Your task to perform on an android device: turn off location history Image 0: 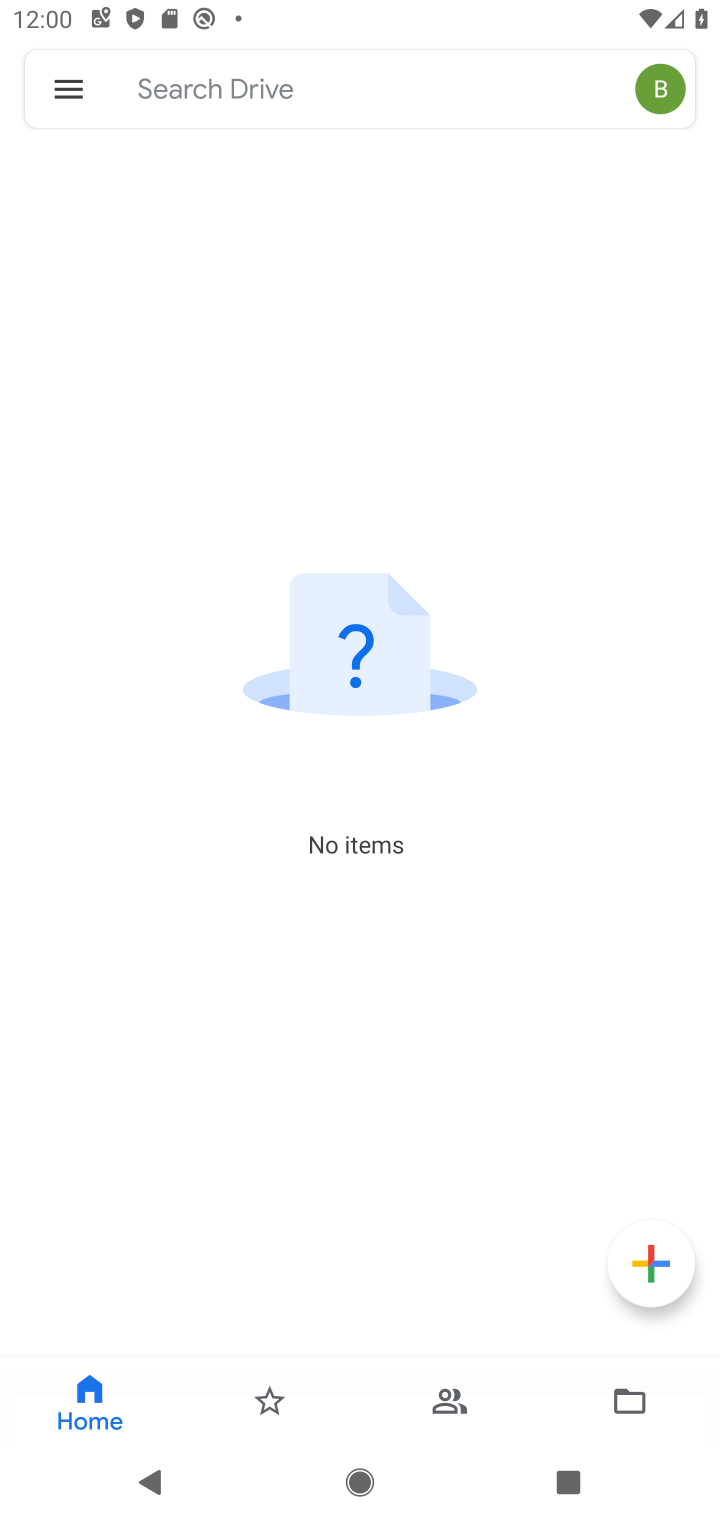
Step 0: press back button
Your task to perform on an android device: turn off location history Image 1: 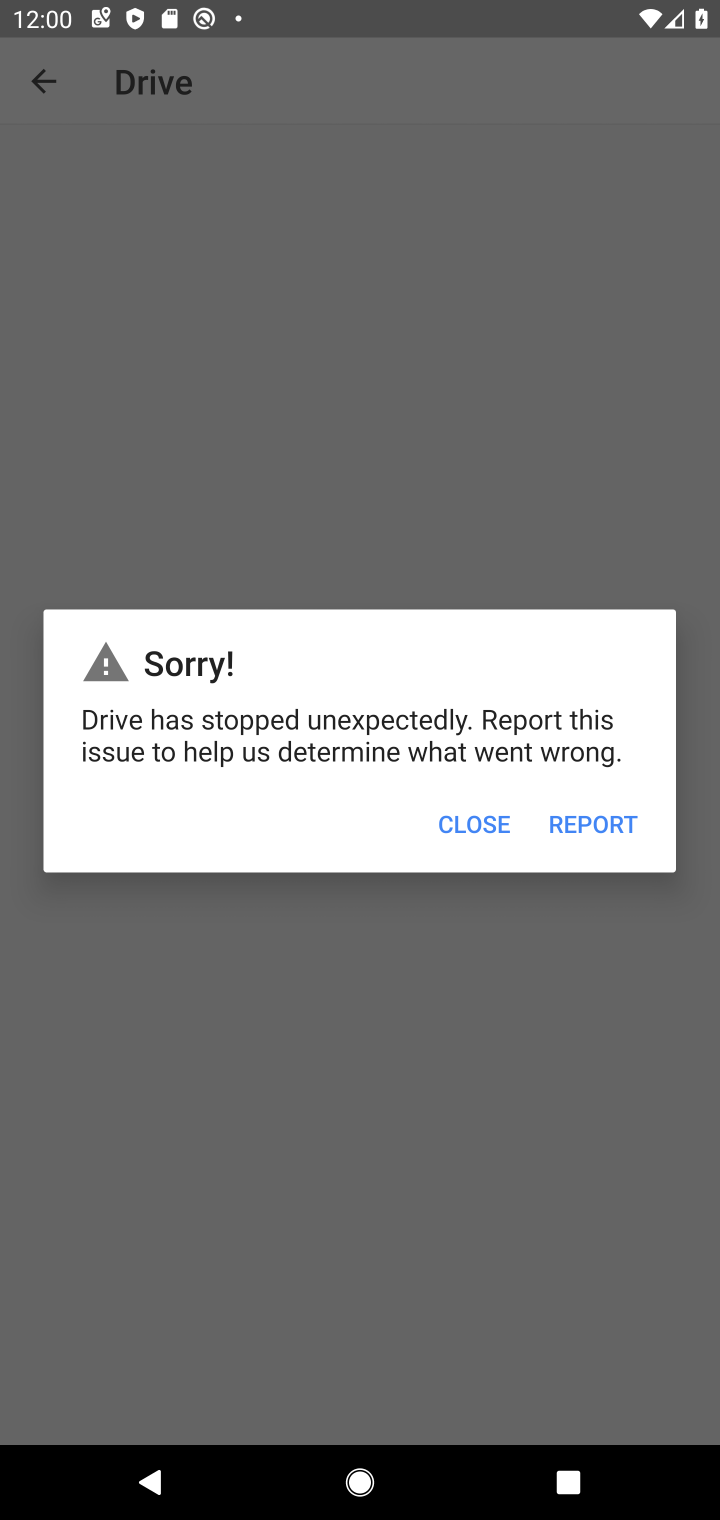
Step 1: click (444, 826)
Your task to perform on an android device: turn off location history Image 2: 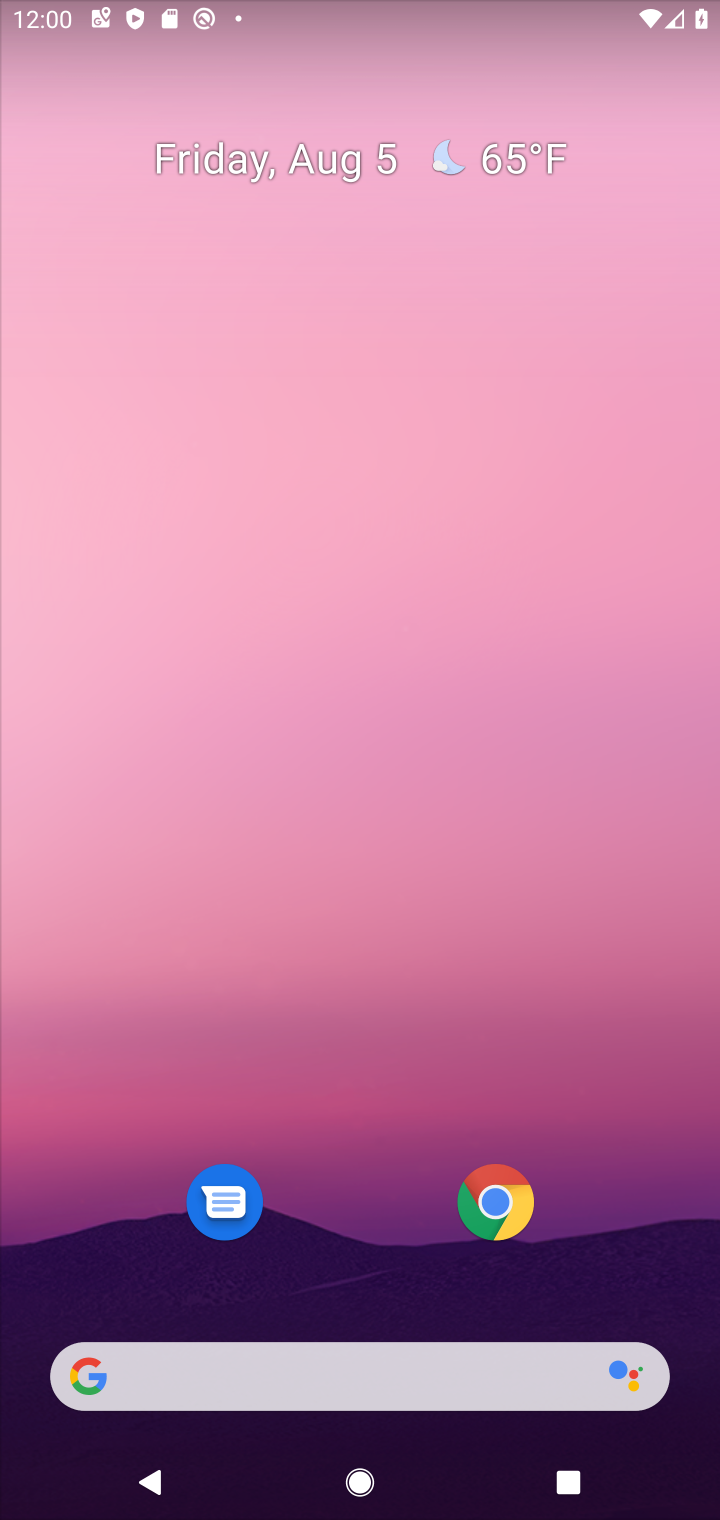
Step 2: drag from (368, 1261) to (455, 42)
Your task to perform on an android device: turn off location history Image 3: 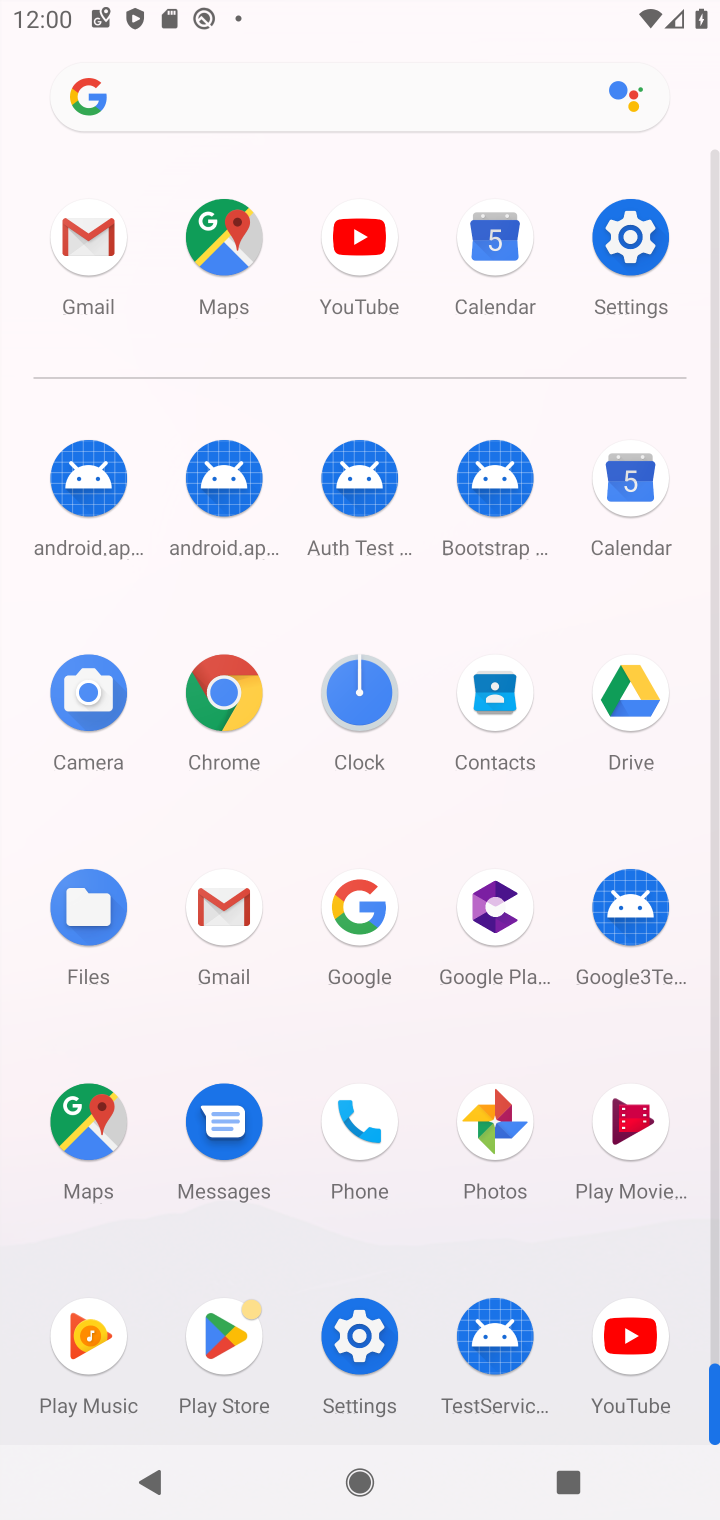
Step 3: click (648, 223)
Your task to perform on an android device: turn off location history Image 4: 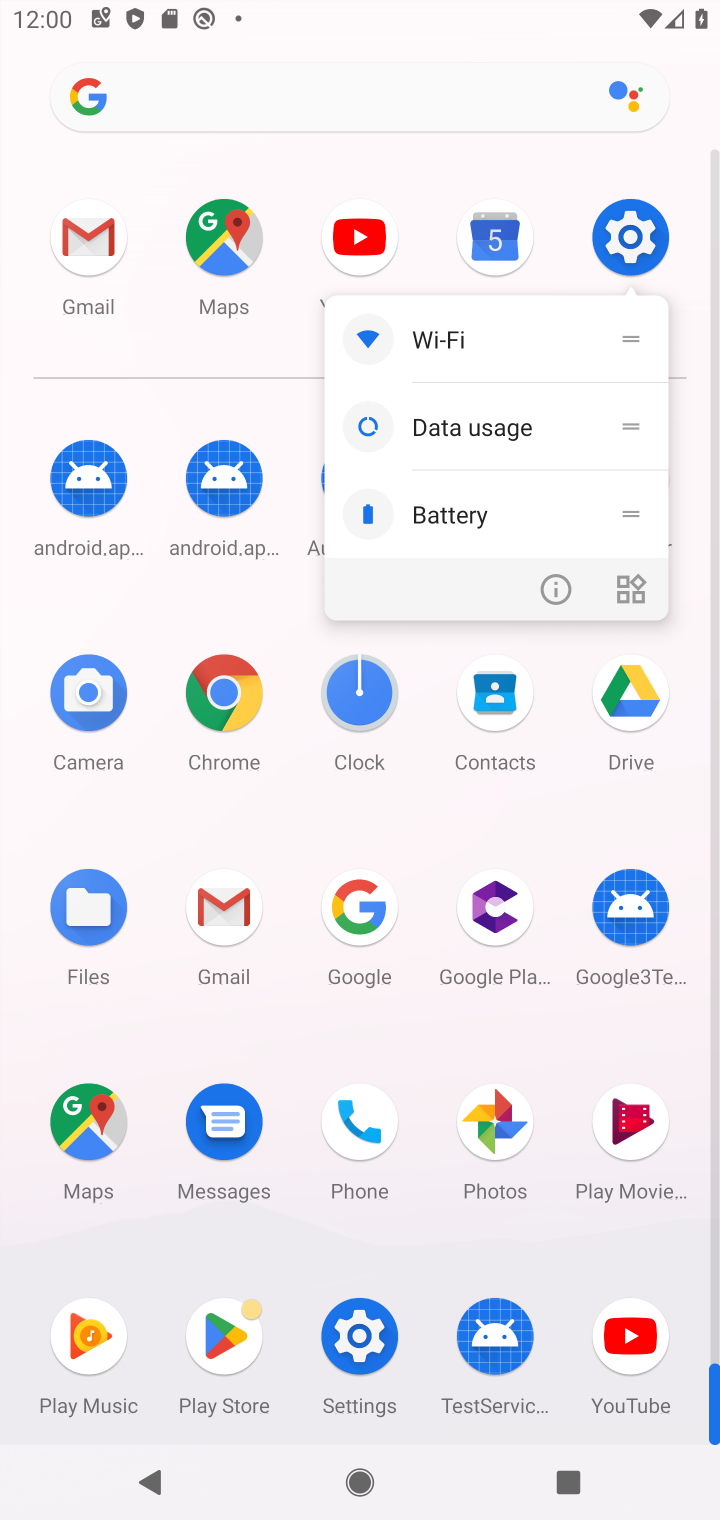
Step 4: click (648, 223)
Your task to perform on an android device: turn off location history Image 5: 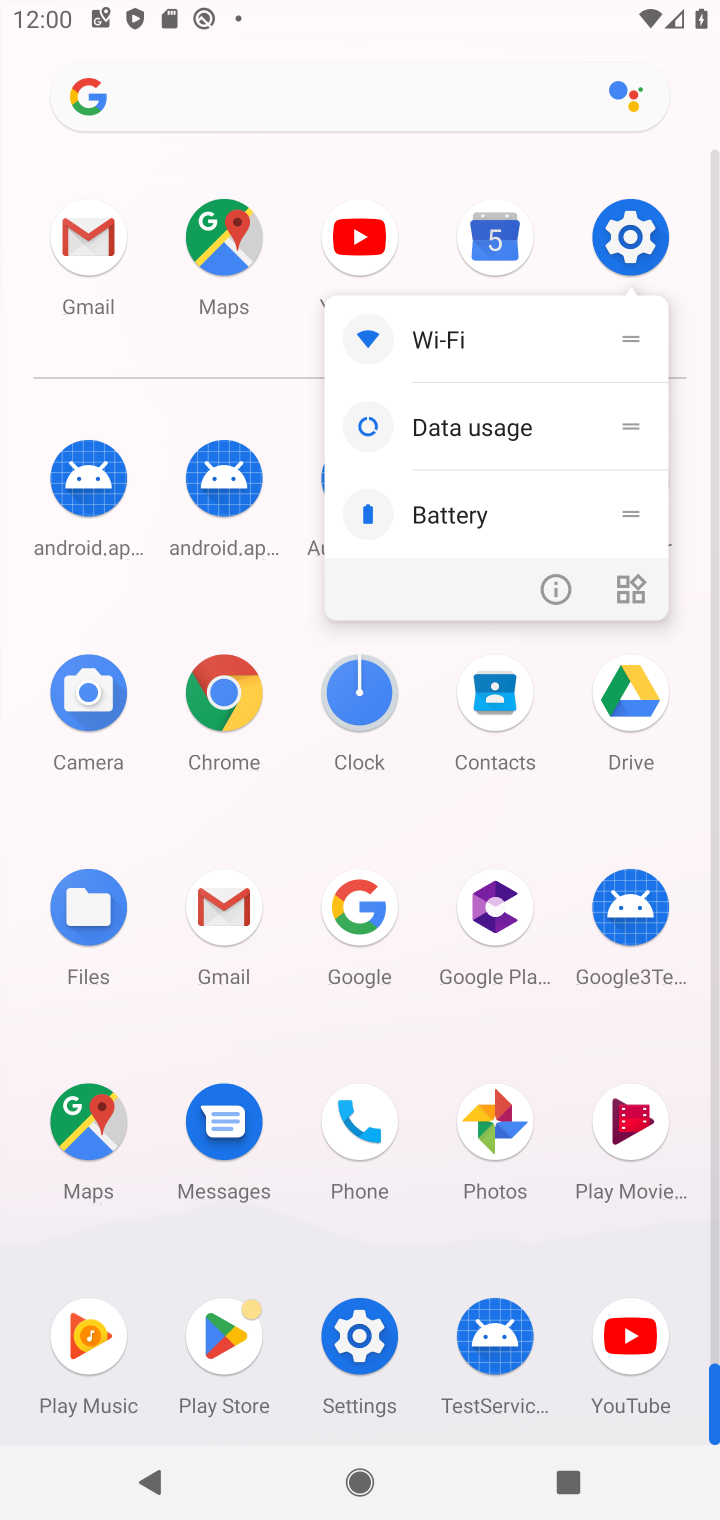
Step 5: click (636, 229)
Your task to perform on an android device: turn off location history Image 6: 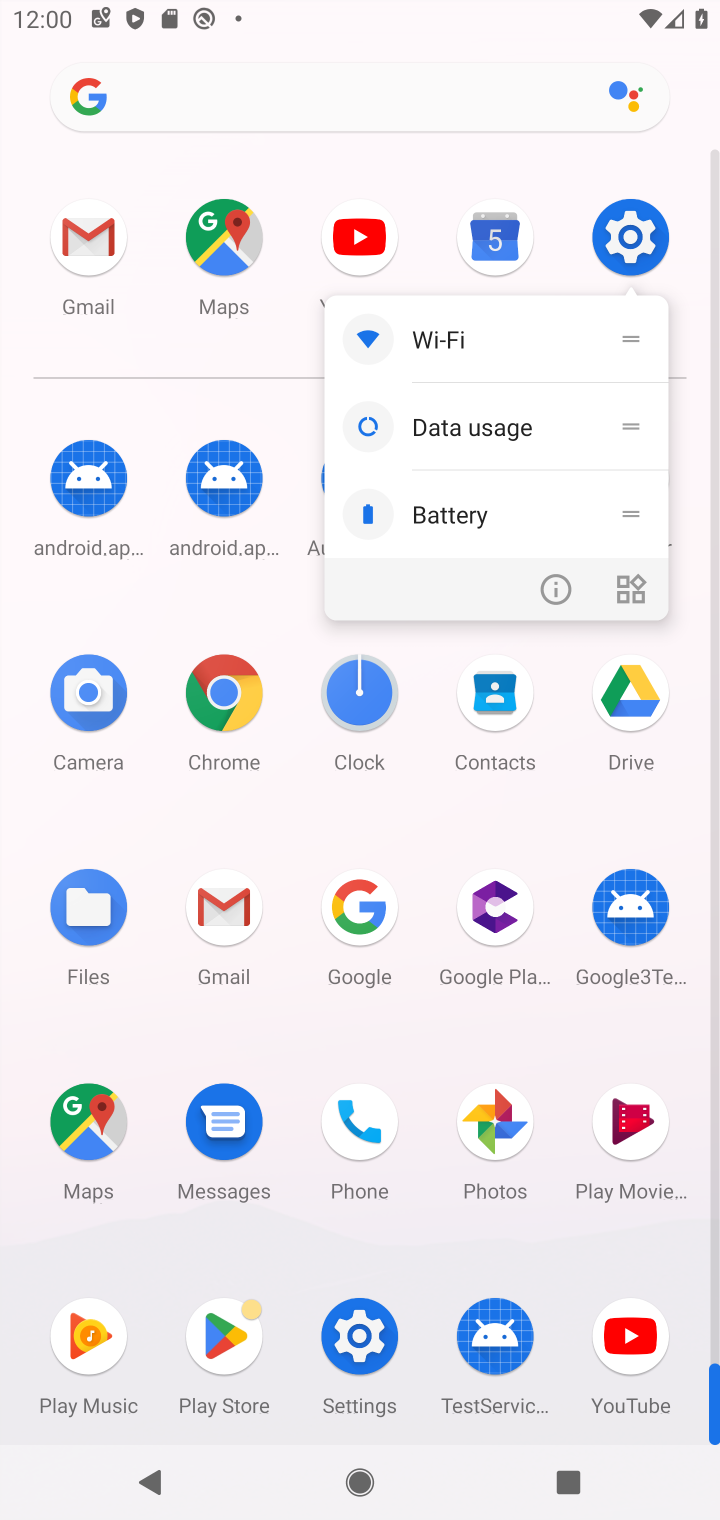
Step 6: click (637, 232)
Your task to perform on an android device: turn off location history Image 7: 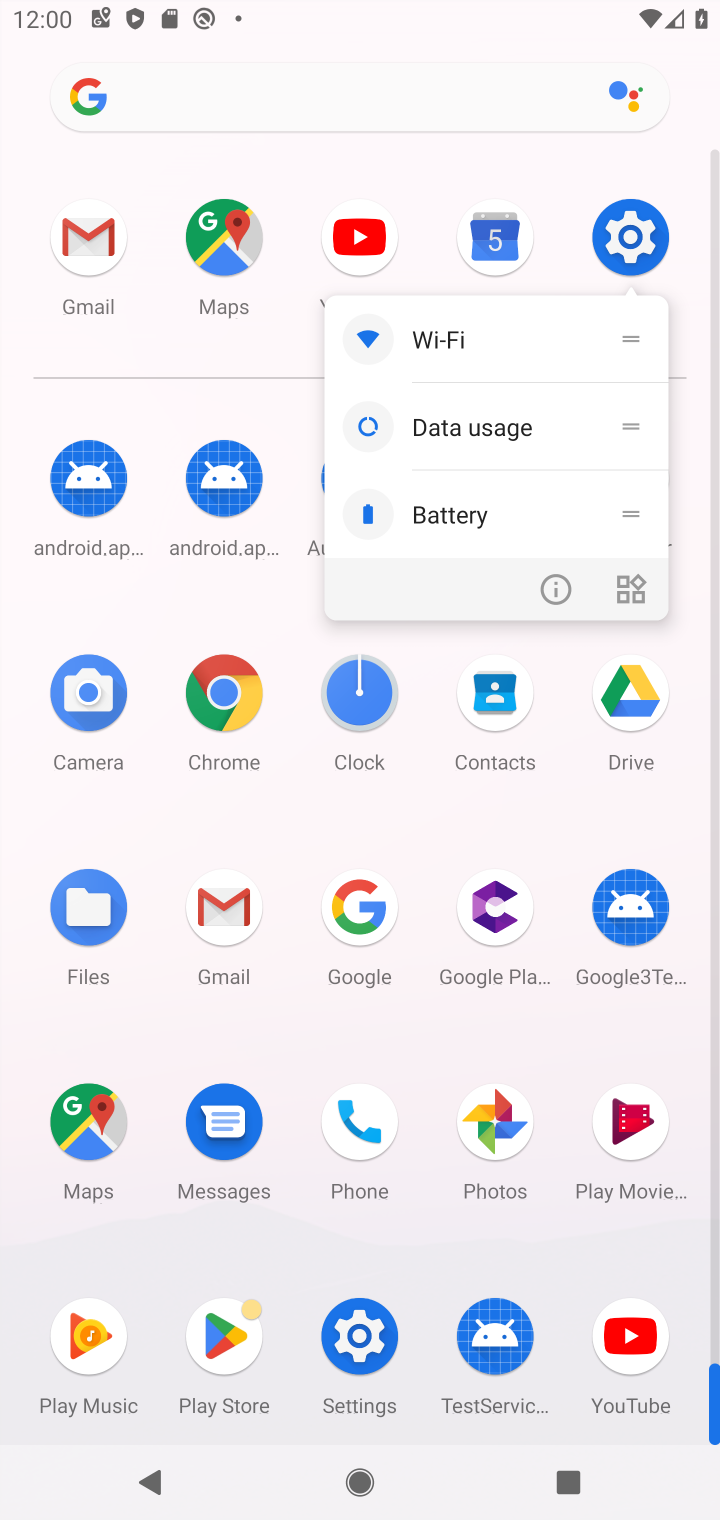
Step 7: click (633, 237)
Your task to perform on an android device: turn off location history Image 8: 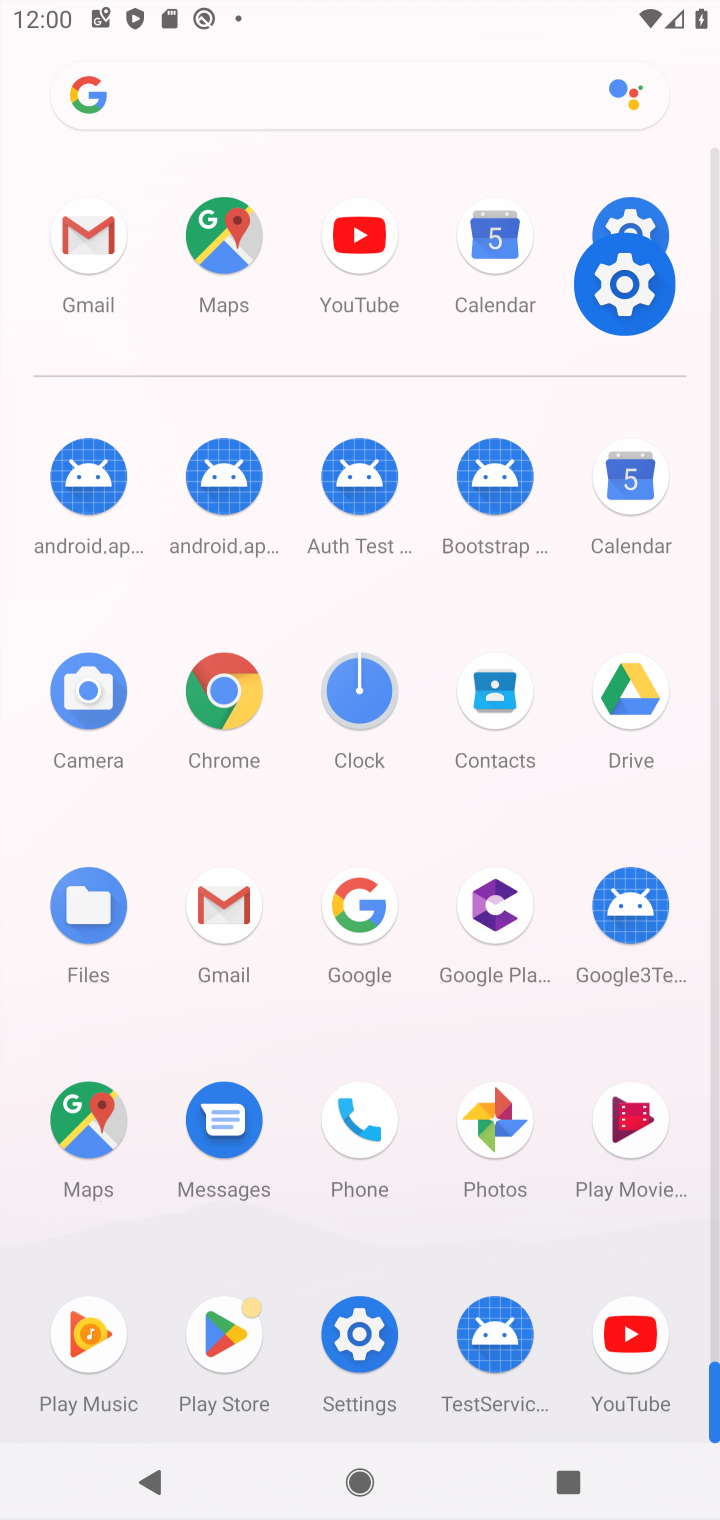
Step 8: click (650, 233)
Your task to perform on an android device: turn off location history Image 9: 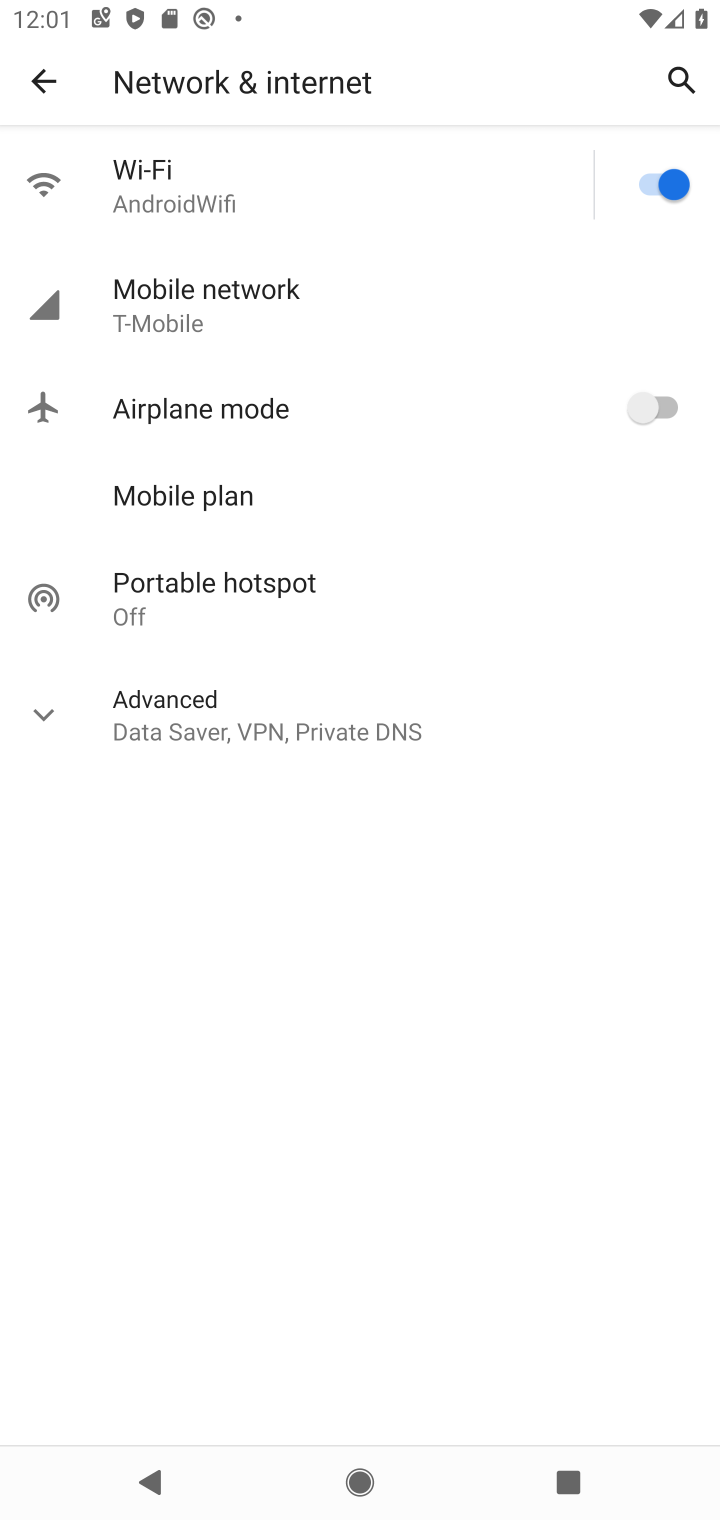
Step 9: click (47, 88)
Your task to perform on an android device: turn off location history Image 10: 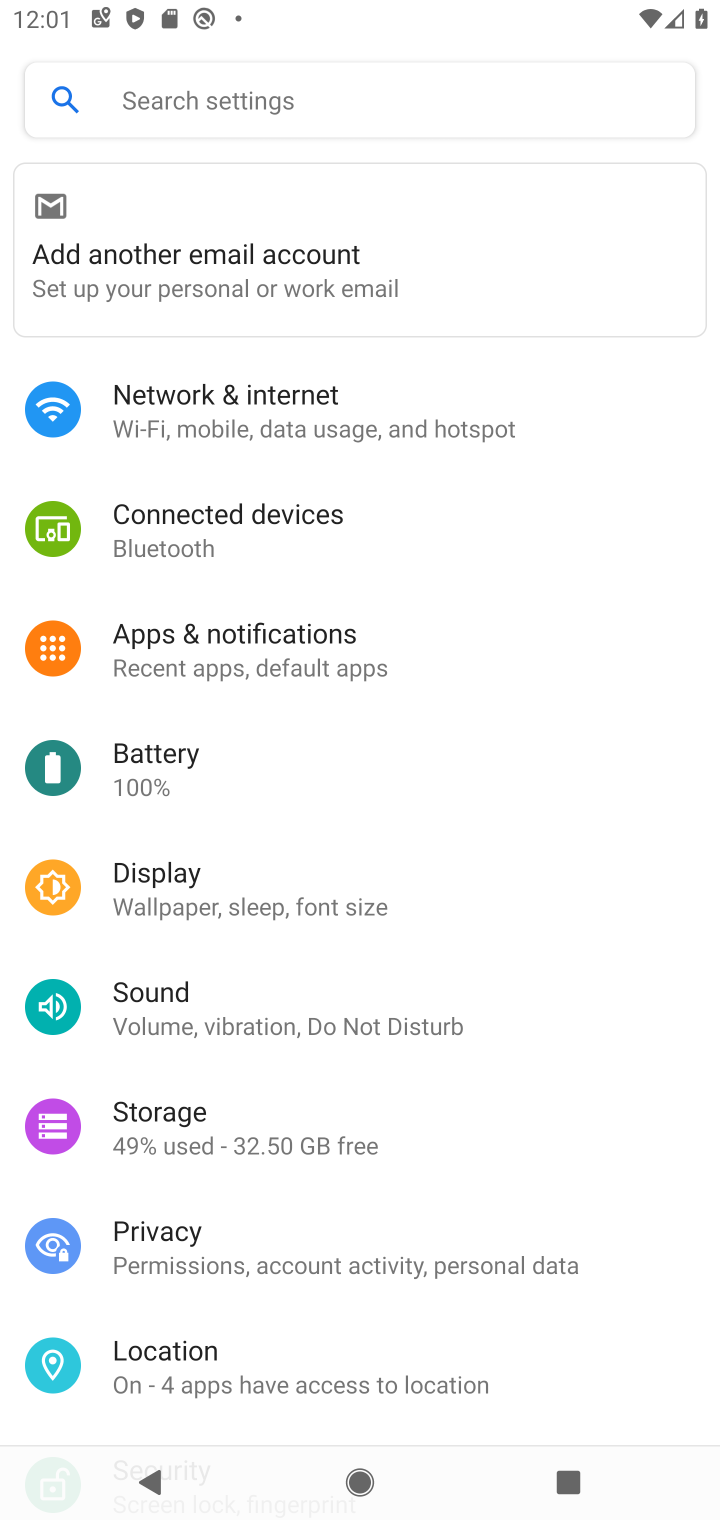
Step 10: click (262, 1356)
Your task to perform on an android device: turn off location history Image 11: 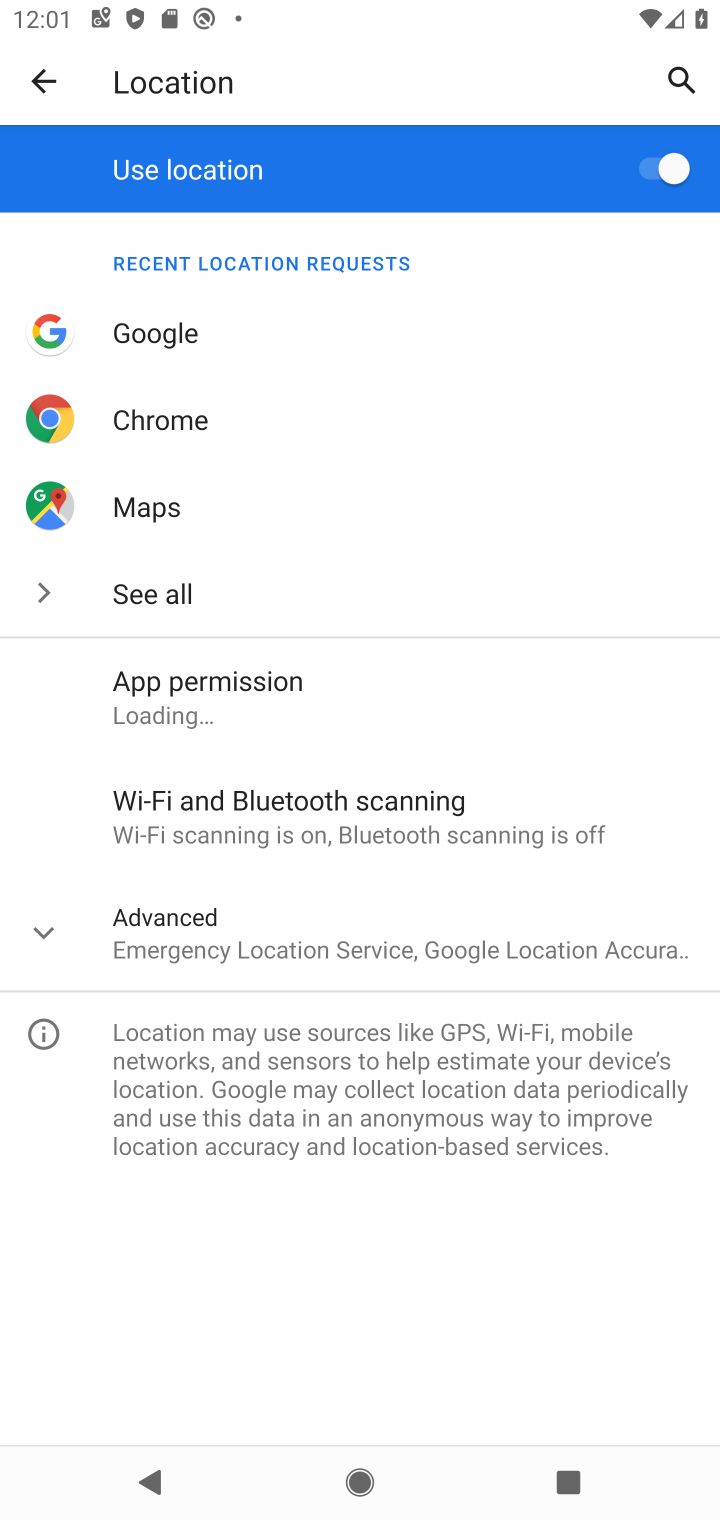
Step 11: click (258, 939)
Your task to perform on an android device: turn off location history Image 12: 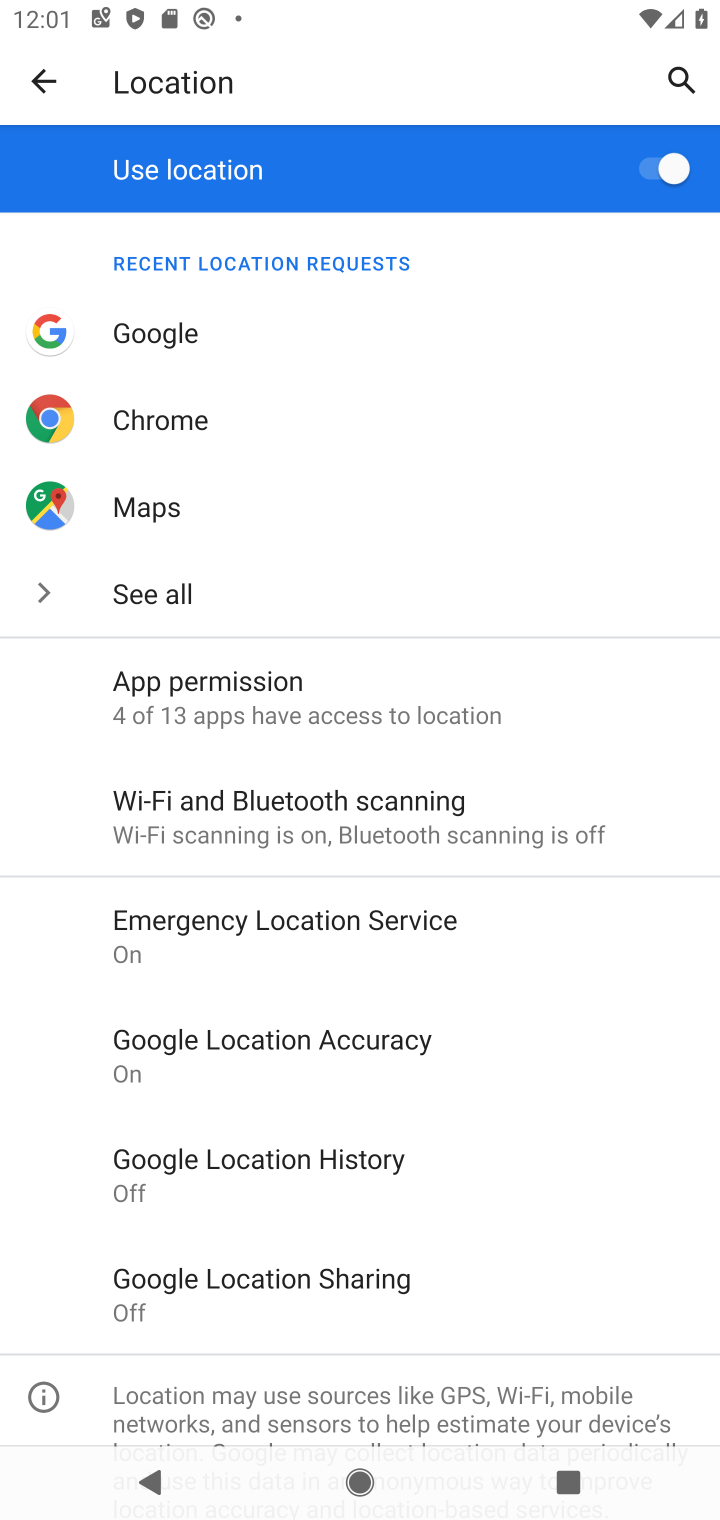
Step 12: click (284, 1143)
Your task to perform on an android device: turn off location history Image 13: 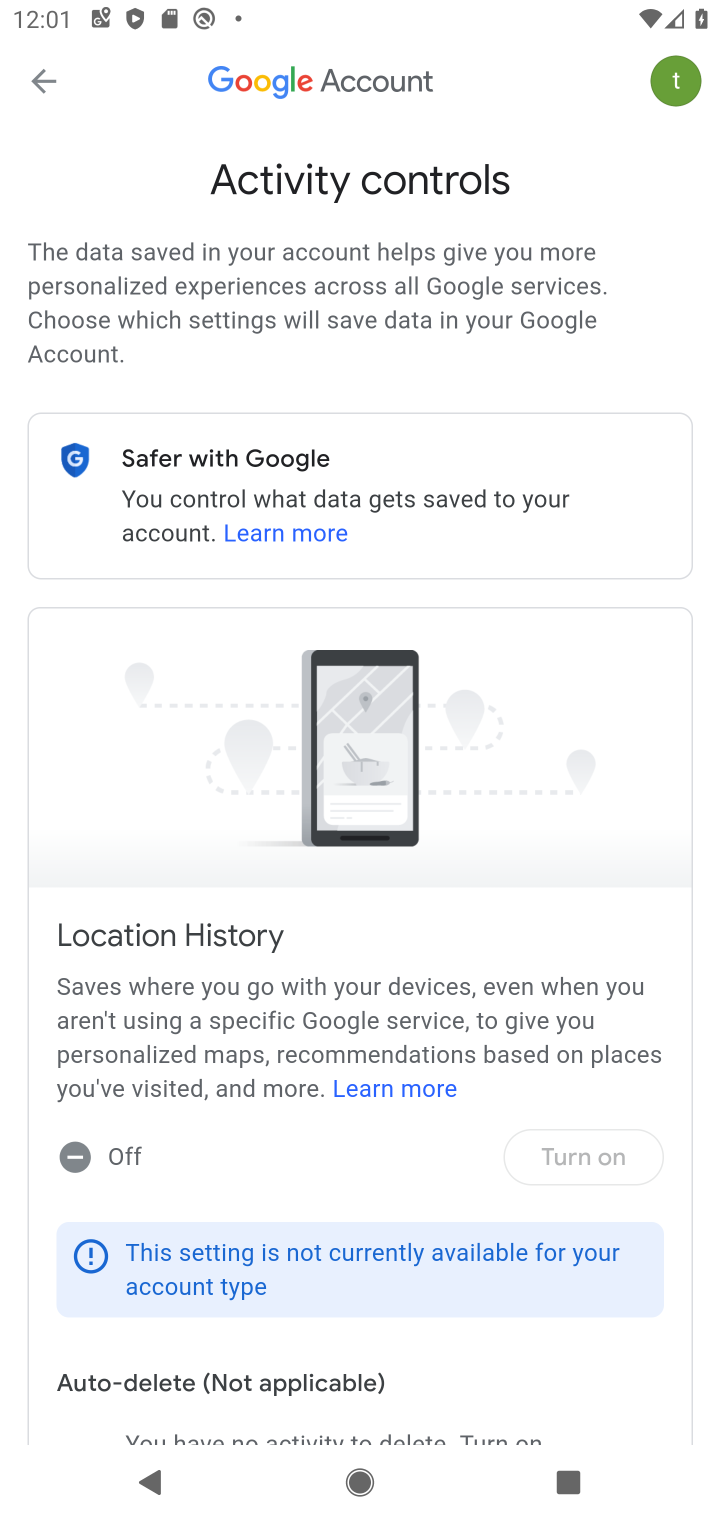
Step 13: task complete